Your task to perform on an android device: empty trash in google photos Image 0: 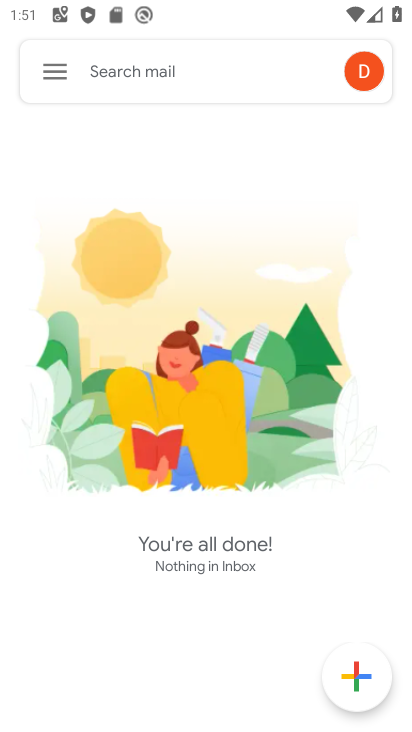
Step 0: press home button
Your task to perform on an android device: empty trash in google photos Image 1: 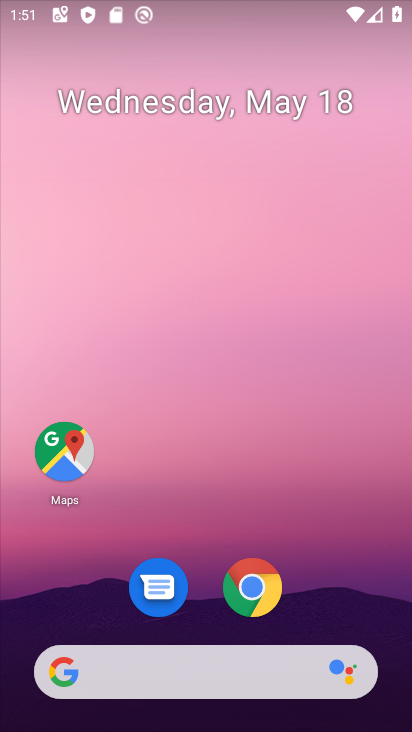
Step 1: drag from (316, 609) to (329, 35)
Your task to perform on an android device: empty trash in google photos Image 2: 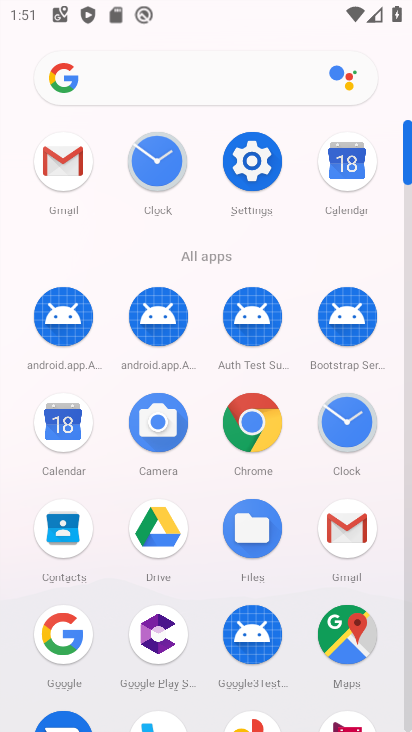
Step 2: click (412, 535)
Your task to perform on an android device: empty trash in google photos Image 3: 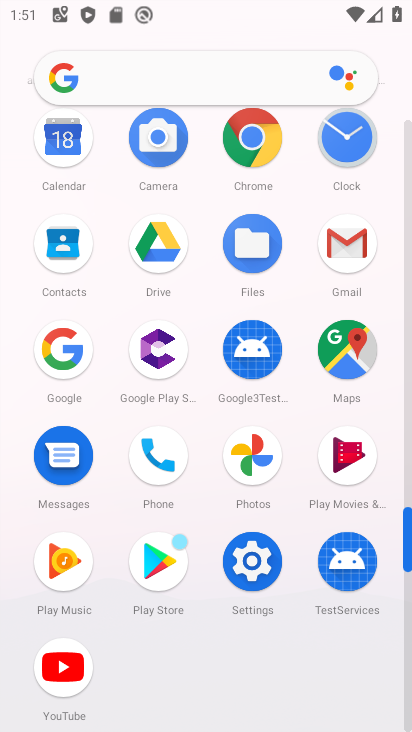
Step 3: click (236, 470)
Your task to perform on an android device: empty trash in google photos Image 4: 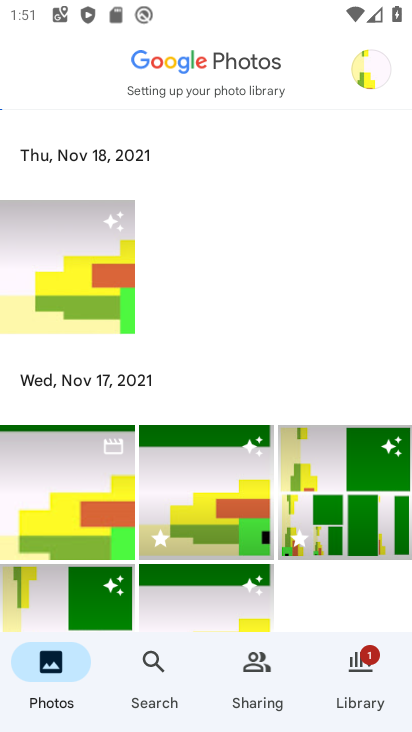
Step 4: click (367, 74)
Your task to perform on an android device: empty trash in google photos Image 5: 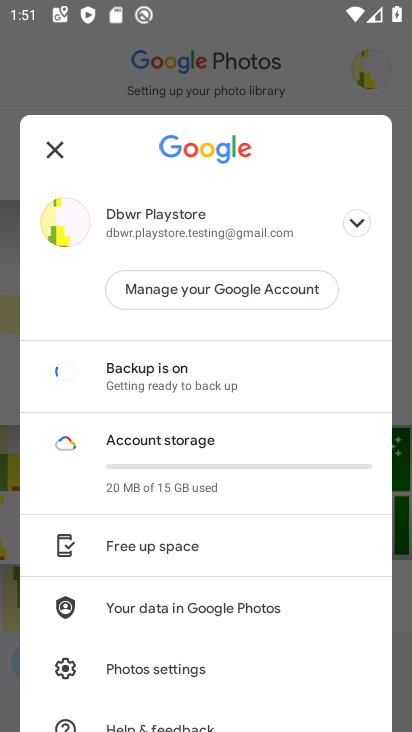
Step 5: task complete